Your task to perform on an android device: Search for "razer thresher" on costco, select the first entry, add it to the cart, then select checkout. Image 0: 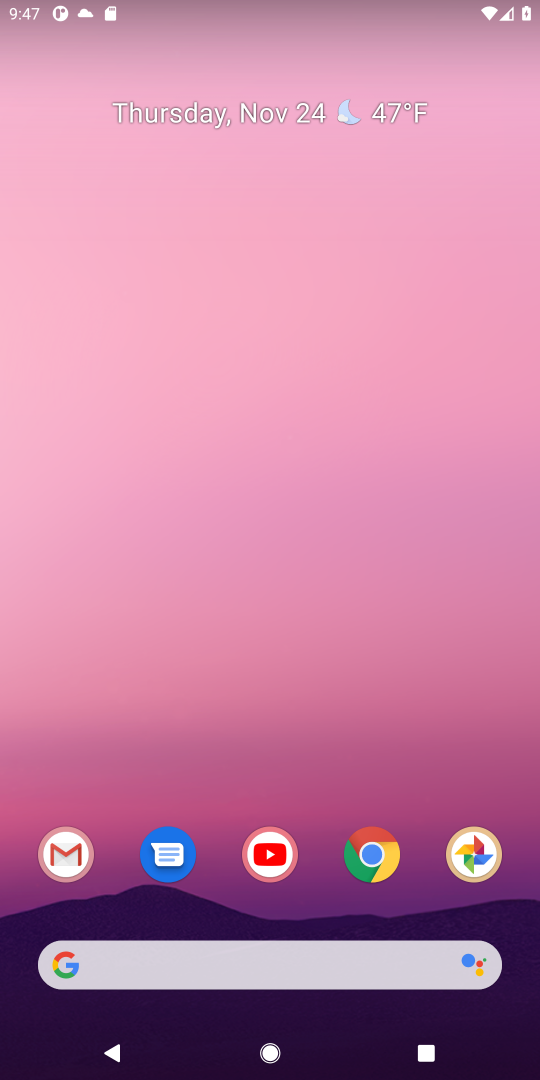
Step 0: click (369, 849)
Your task to perform on an android device: Search for "razer thresher" on costco, select the first entry, add it to the cart, then select checkout. Image 1: 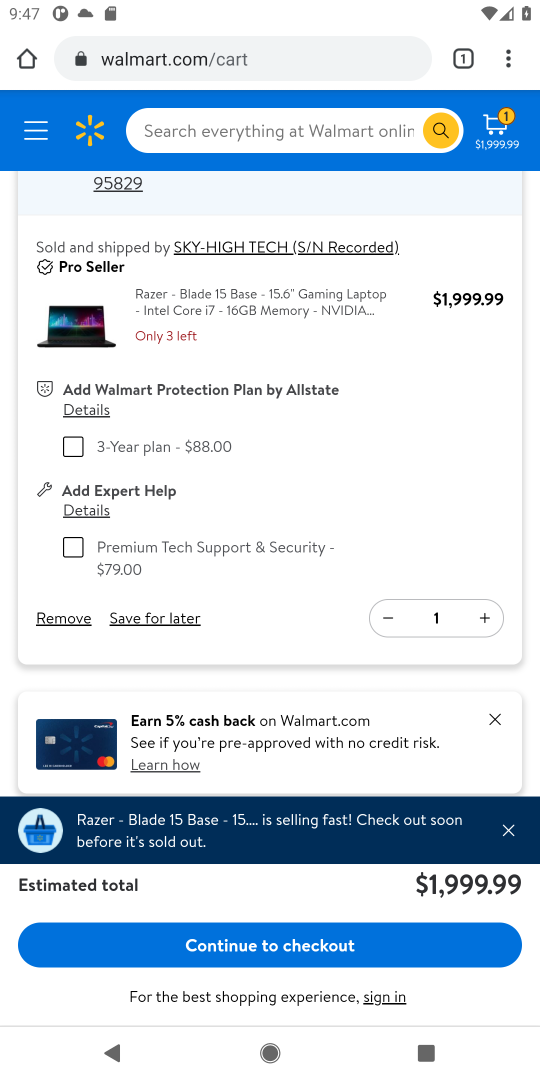
Step 1: click (212, 63)
Your task to perform on an android device: Search for "razer thresher" on costco, select the first entry, add it to the cart, then select checkout. Image 2: 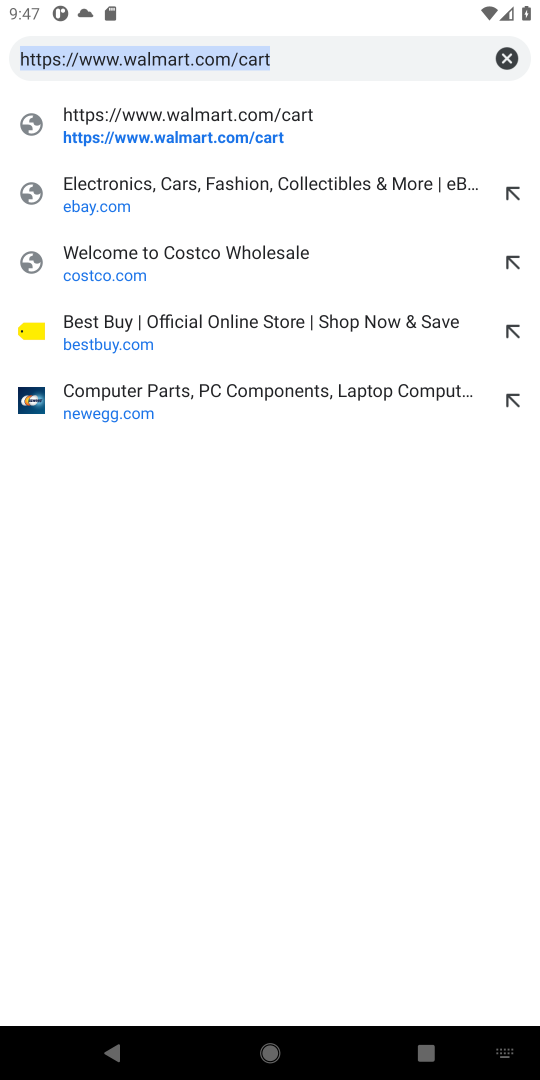
Step 2: click (100, 272)
Your task to perform on an android device: Search for "razer thresher" on costco, select the first entry, add it to the cart, then select checkout. Image 3: 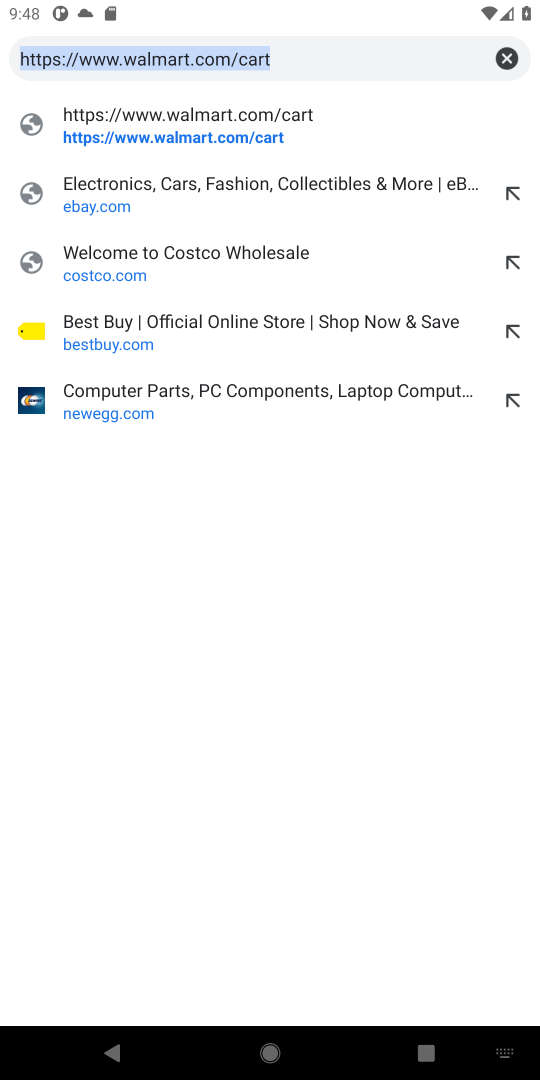
Step 3: click (99, 262)
Your task to perform on an android device: Search for "razer thresher" on costco, select the first entry, add it to the cart, then select checkout. Image 4: 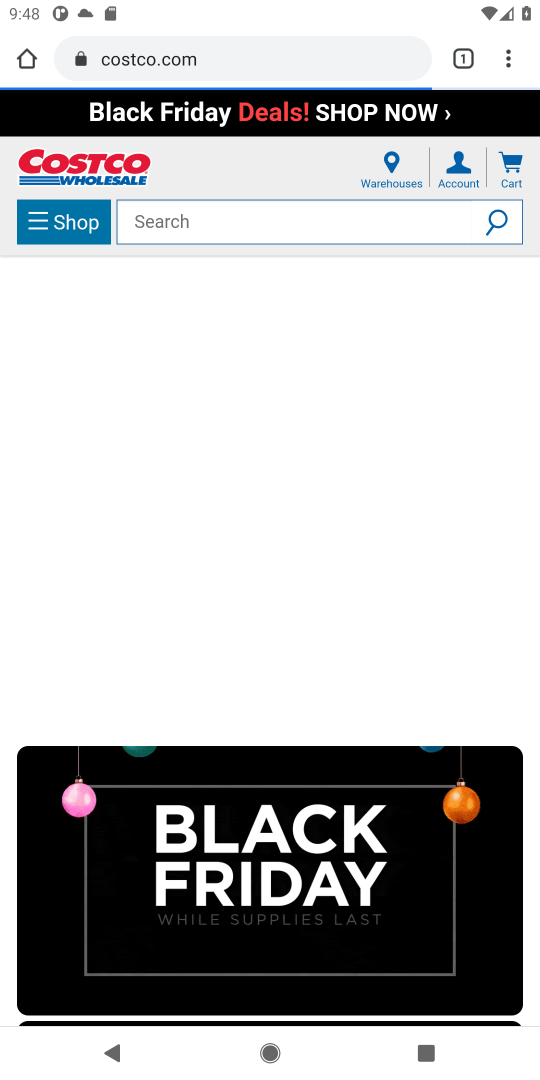
Step 4: click (168, 221)
Your task to perform on an android device: Search for "razer thresher" on costco, select the first entry, add it to the cart, then select checkout. Image 5: 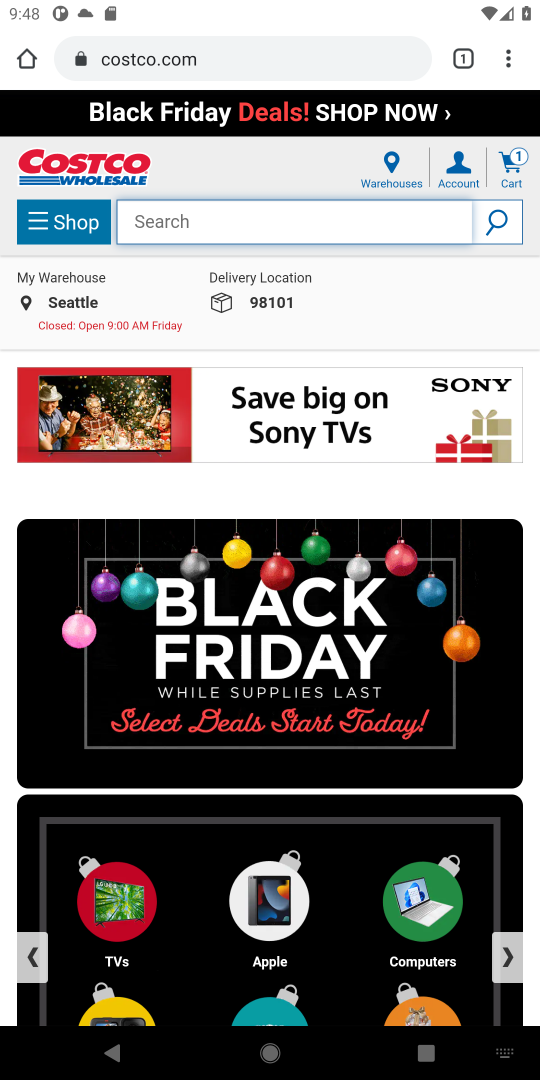
Step 5: type "razer thresher"
Your task to perform on an android device: Search for "razer thresher" on costco, select the first entry, add it to the cart, then select checkout. Image 6: 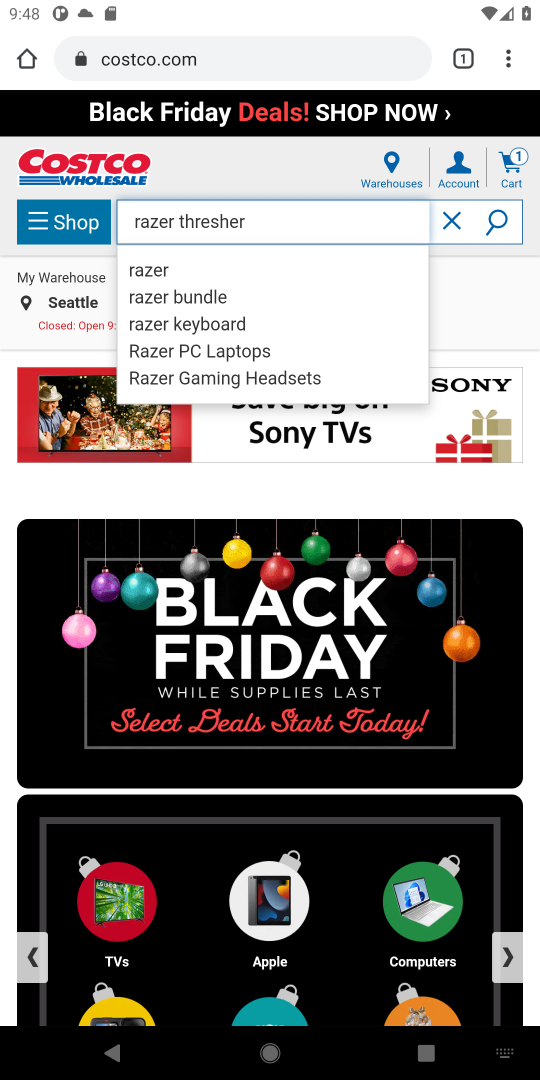
Step 6: click (492, 221)
Your task to perform on an android device: Search for "razer thresher" on costco, select the first entry, add it to the cart, then select checkout. Image 7: 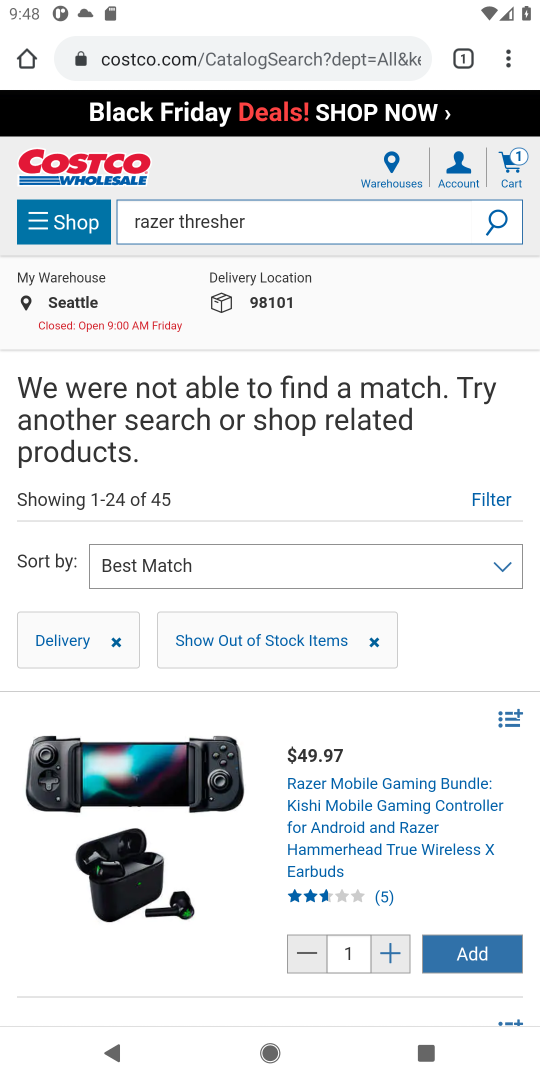
Step 7: task complete